Your task to perform on an android device: Open Google Maps and go to "Timeline" Image 0: 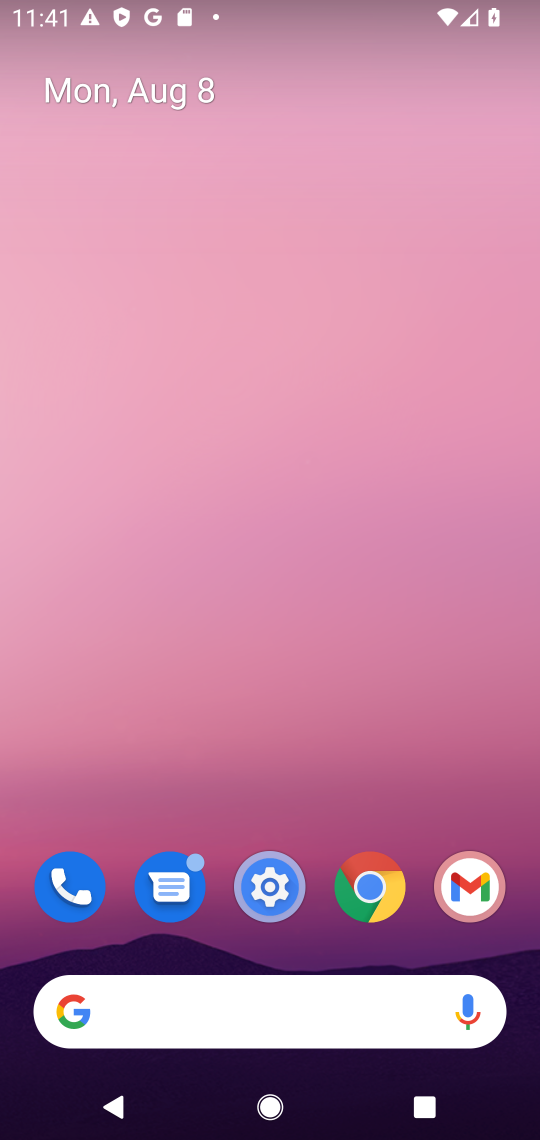
Step 0: drag from (333, 811) to (302, 137)
Your task to perform on an android device: Open Google Maps and go to "Timeline" Image 1: 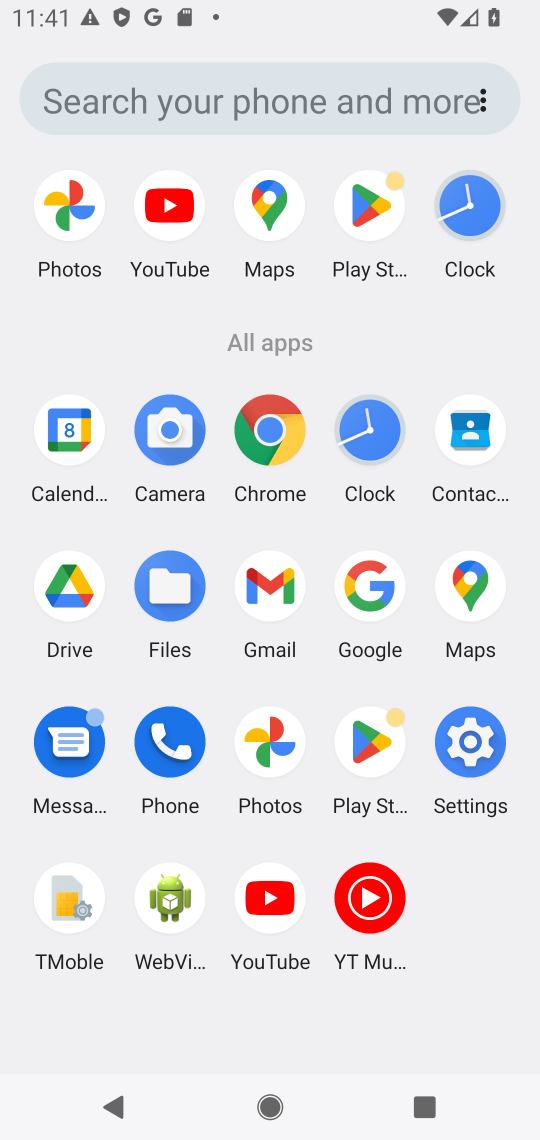
Step 1: click (268, 197)
Your task to perform on an android device: Open Google Maps and go to "Timeline" Image 2: 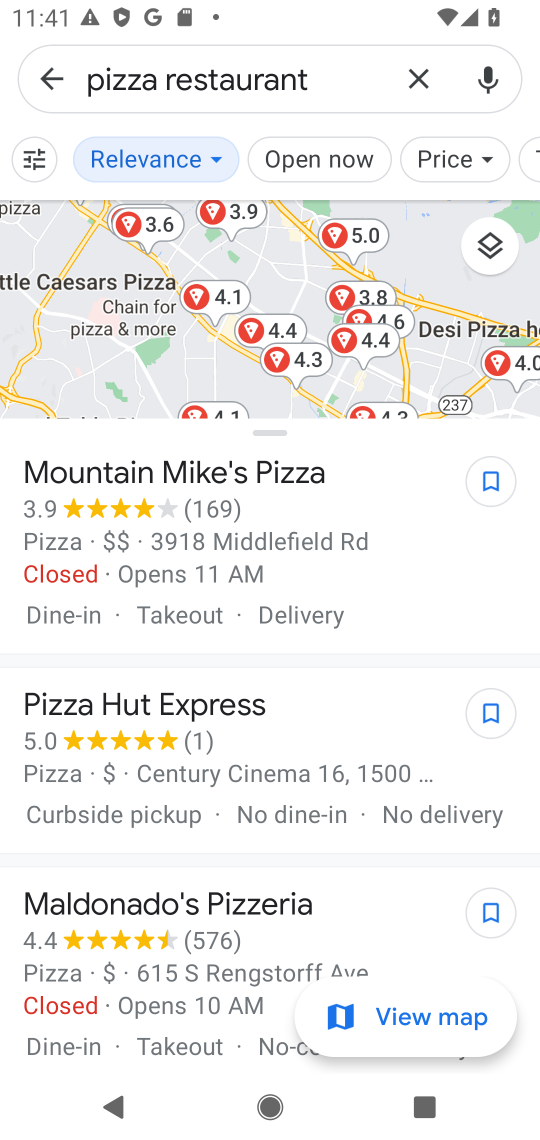
Step 2: click (50, 71)
Your task to perform on an android device: Open Google Maps and go to "Timeline" Image 3: 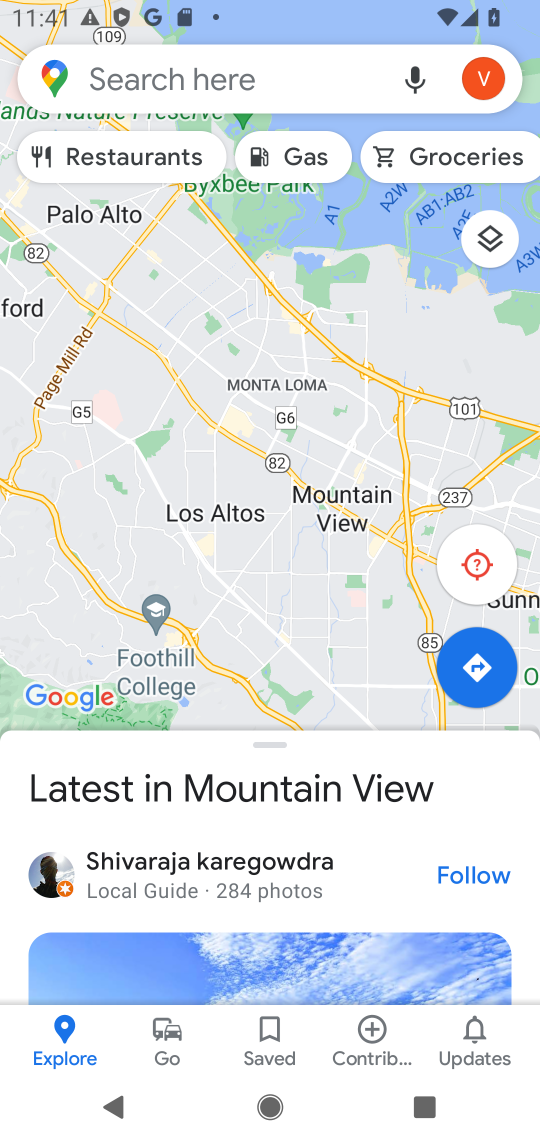
Step 3: click (490, 80)
Your task to perform on an android device: Open Google Maps and go to "Timeline" Image 4: 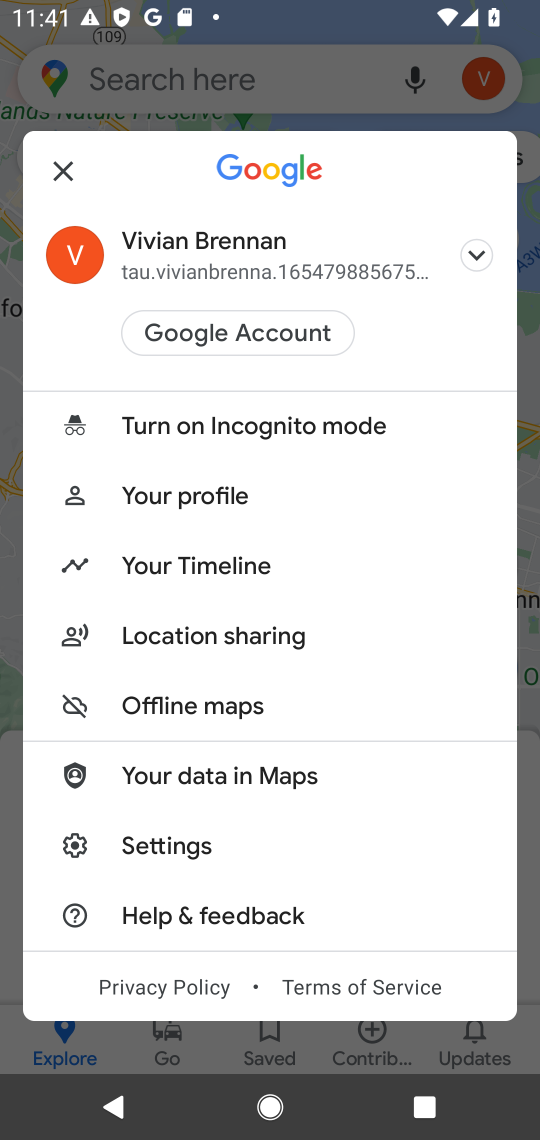
Step 4: click (189, 556)
Your task to perform on an android device: Open Google Maps and go to "Timeline" Image 5: 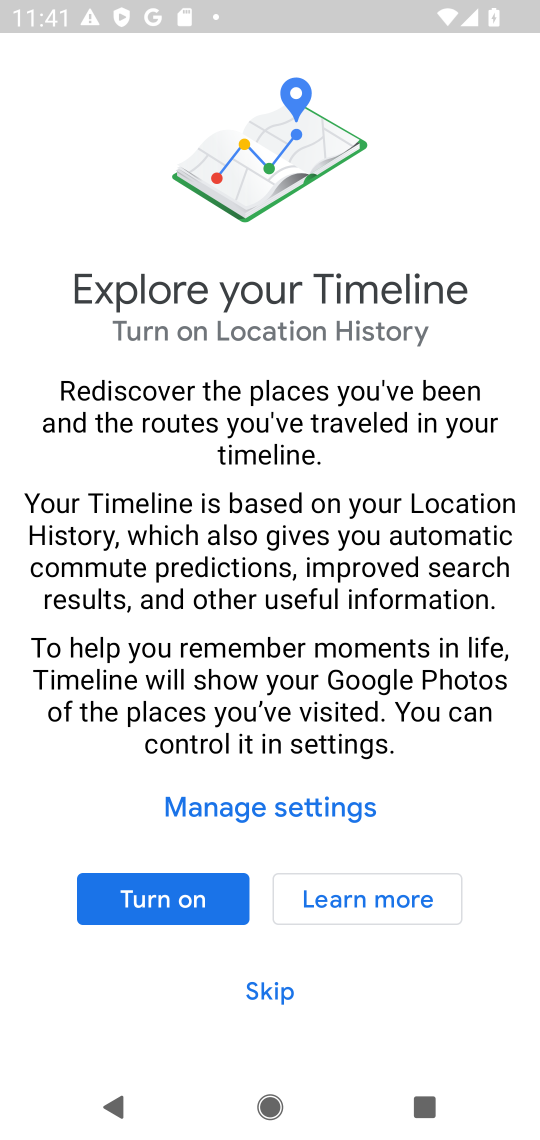
Step 5: click (207, 897)
Your task to perform on an android device: Open Google Maps and go to "Timeline" Image 6: 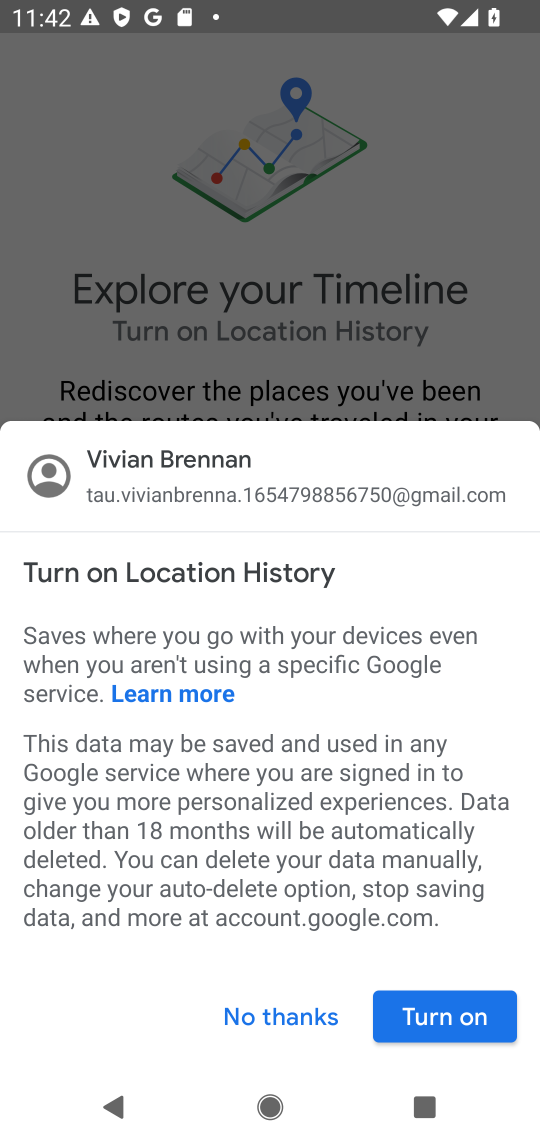
Step 6: click (417, 1018)
Your task to perform on an android device: Open Google Maps and go to "Timeline" Image 7: 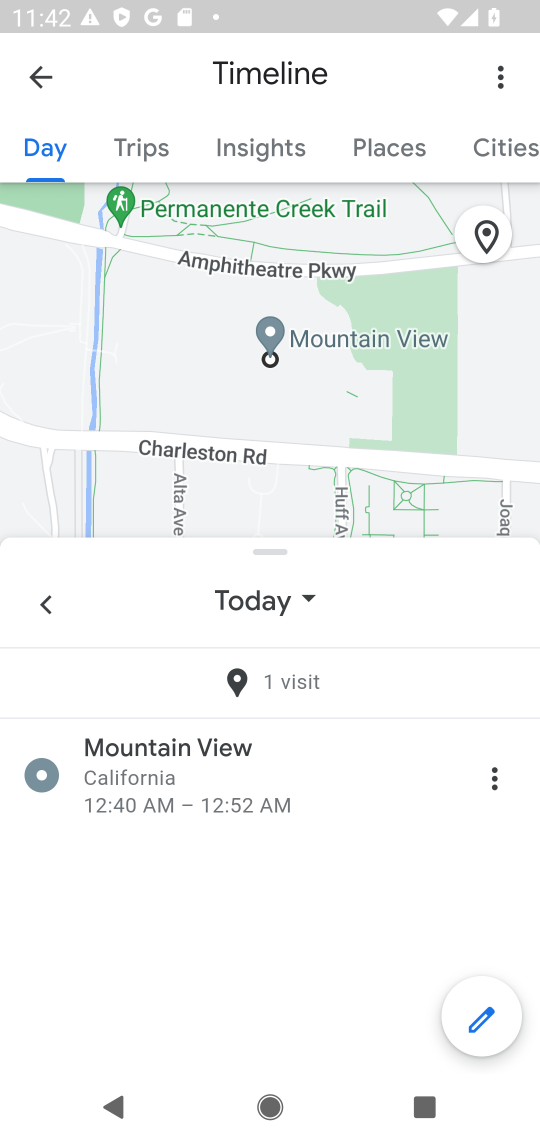
Step 7: task complete